Your task to perform on an android device: Open Google Maps Image 0: 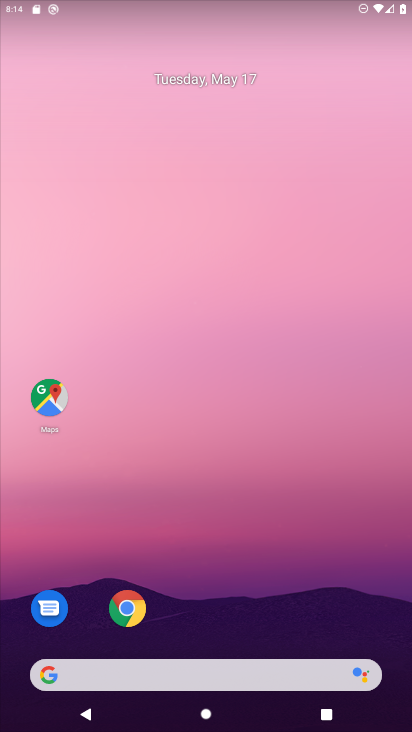
Step 0: click (57, 408)
Your task to perform on an android device: Open Google Maps Image 1: 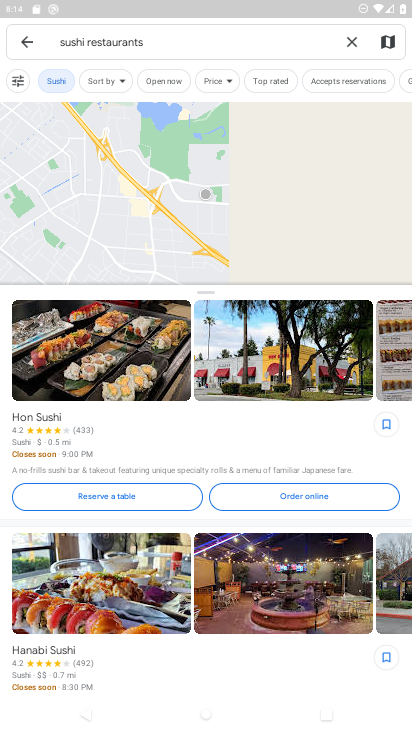
Step 1: click (24, 40)
Your task to perform on an android device: Open Google Maps Image 2: 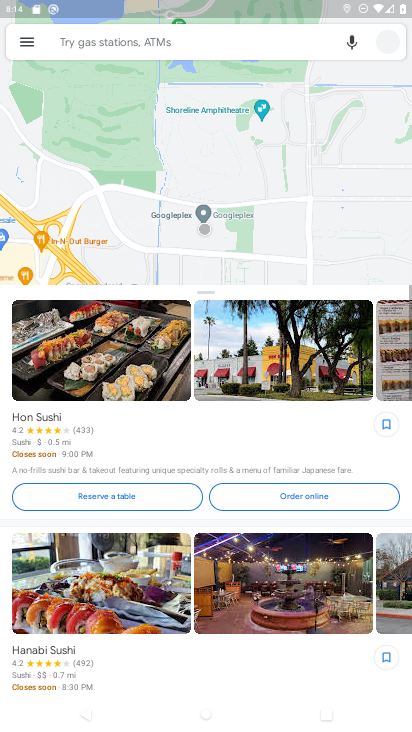
Step 2: task complete